Your task to perform on an android device: move an email to a new category in the gmail app Image 0: 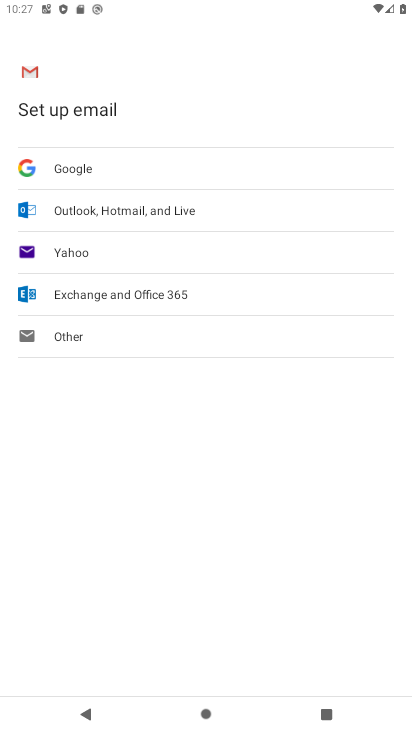
Step 0: press home button
Your task to perform on an android device: move an email to a new category in the gmail app Image 1: 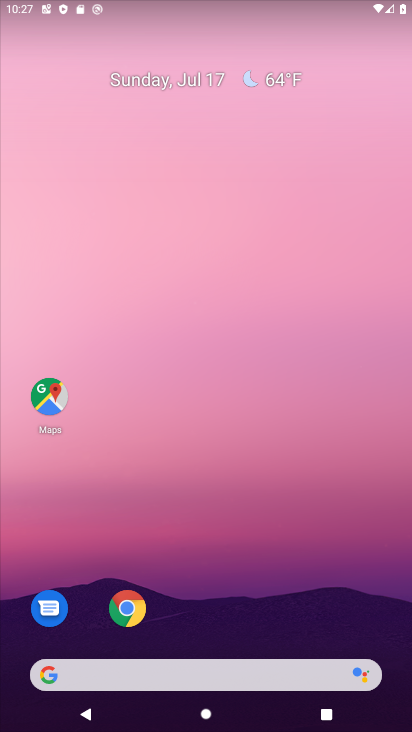
Step 1: drag from (351, 582) to (204, 13)
Your task to perform on an android device: move an email to a new category in the gmail app Image 2: 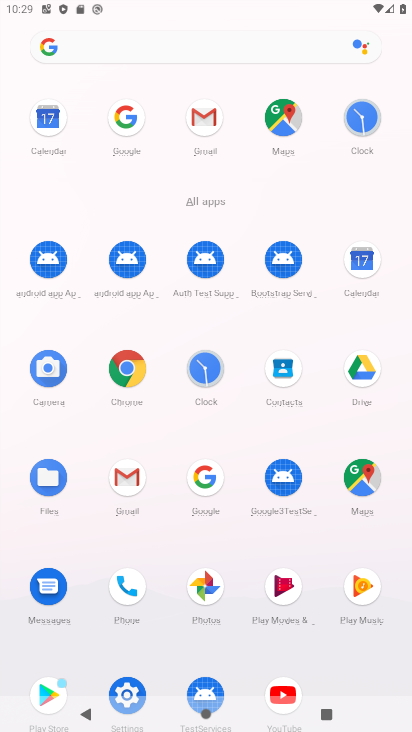
Step 2: click (121, 481)
Your task to perform on an android device: move an email to a new category in the gmail app Image 3: 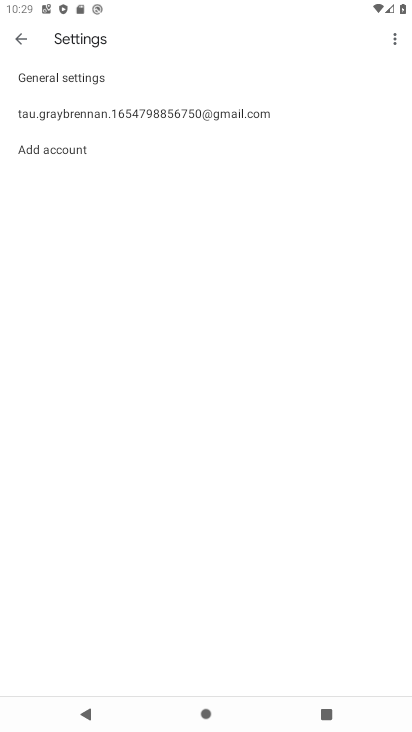
Step 3: task complete